Your task to perform on an android device: Is it going to rain today? Image 0: 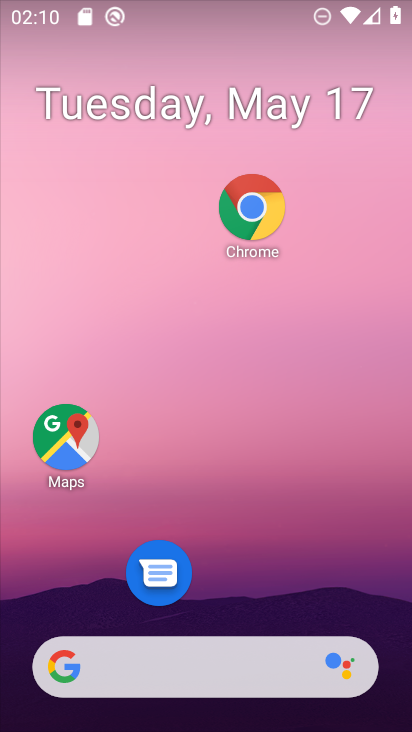
Step 0: drag from (333, 593) to (290, 21)
Your task to perform on an android device: Is it going to rain today? Image 1: 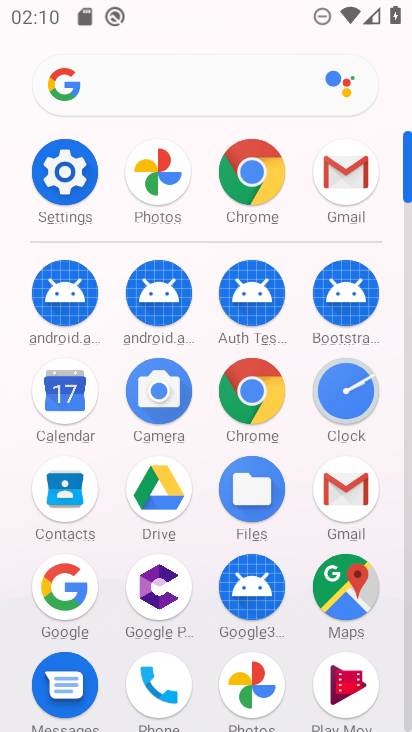
Step 1: click (262, 410)
Your task to perform on an android device: Is it going to rain today? Image 2: 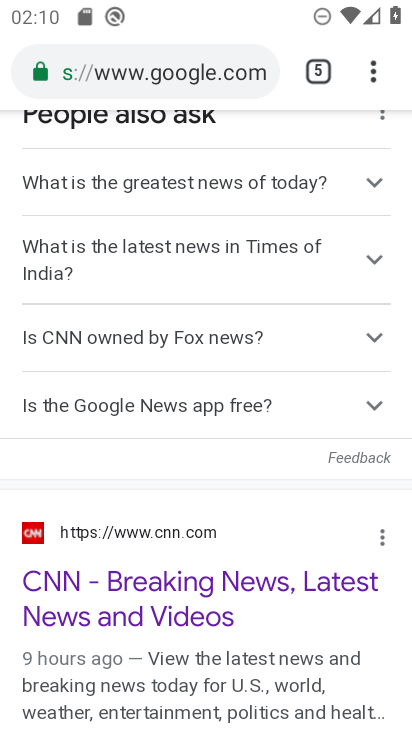
Step 2: press home button
Your task to perform on an android device: Is it going to rain today? Image 3: 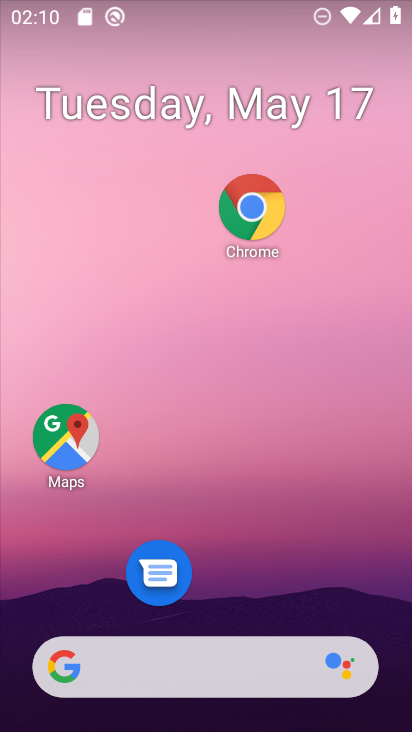
Step 3: drag from (112, 285) to (409, 308)
Your task to perform on an android device: Is it going to rain today? Image 4: 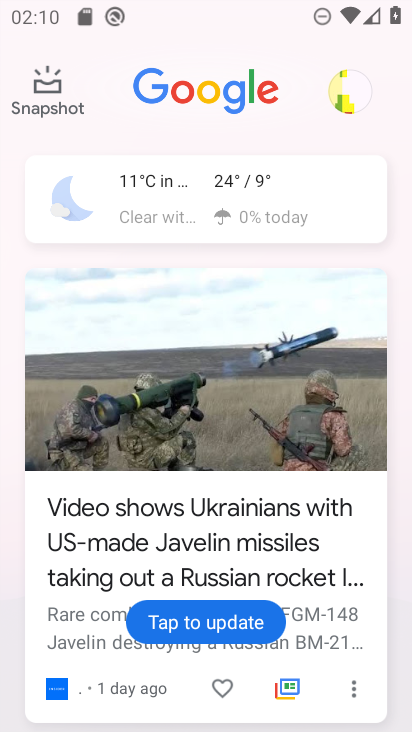
Step 4: click (170, 202)
Your task to perform on an android device: Is it going to rain today? Image 5: 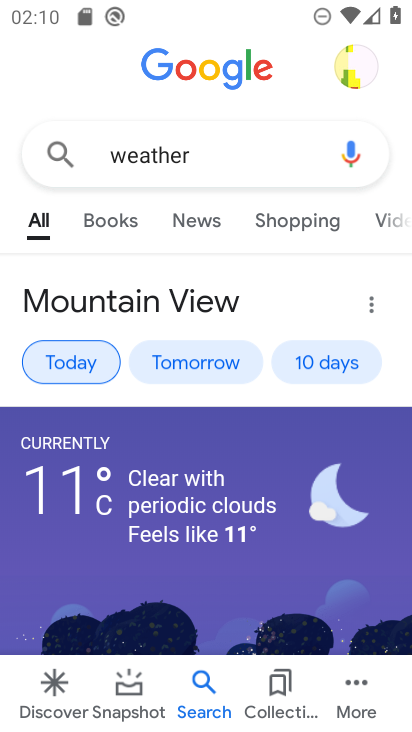
Step 5: task complete